Your task to perform on an android device: Check the weather Image 0: 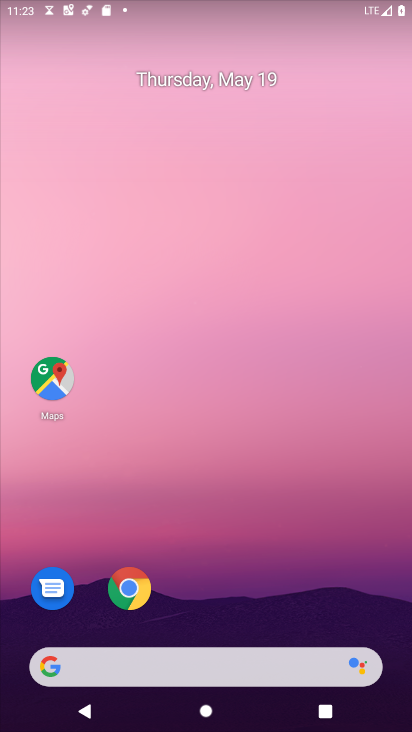
Step 0: drag from (281, 553) to (193, 61)
Your task to perform on an android device: Check the weather Image 1: 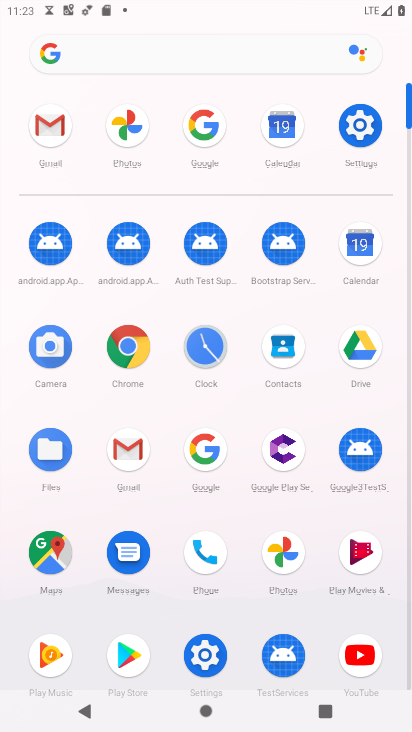
Step 1: click (194, 449)
Your task to perform on an android device: Check the weather Image 2: 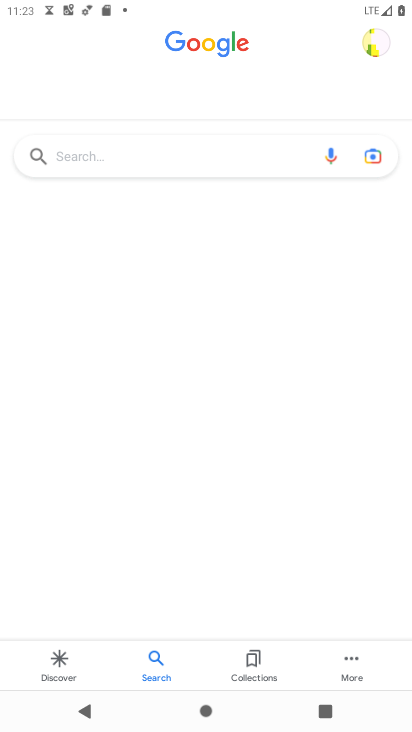
Step 2: click (182, 151)
Your task to perform on an android device: Check the weather Image 3: 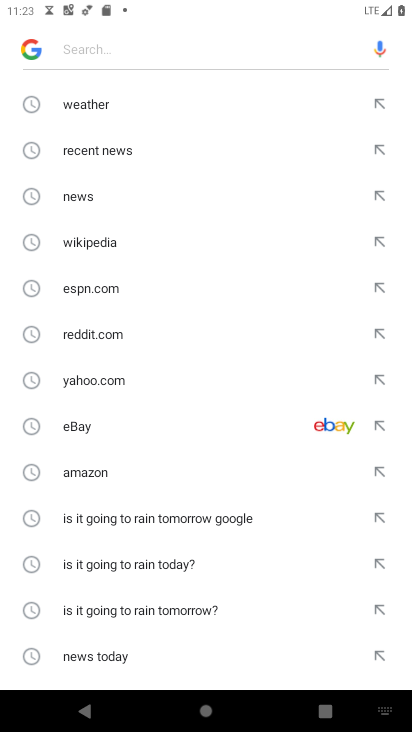
Step 3: click (111, 92)
Your task to perform on an android device: Check the weather Image 4: 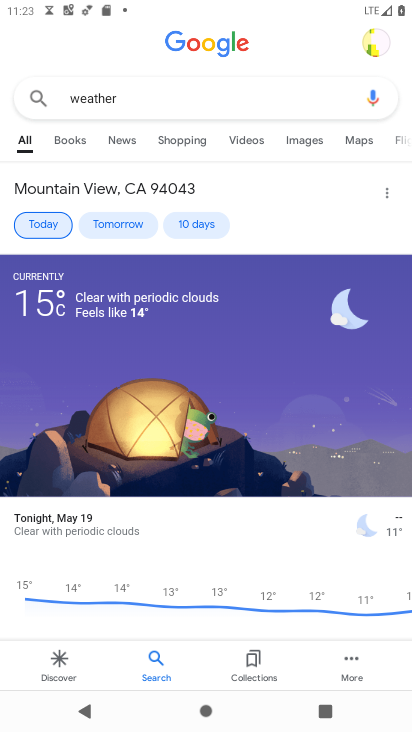
Step 4: task complete